Your task to perform on an android device: toggle notification dots Image 0: 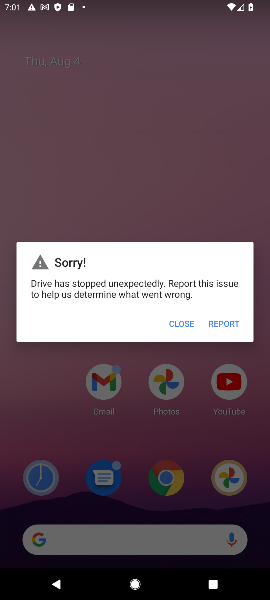
Step 0: press home button
Your task to perform on an android device: toggle notification dots Image 1: 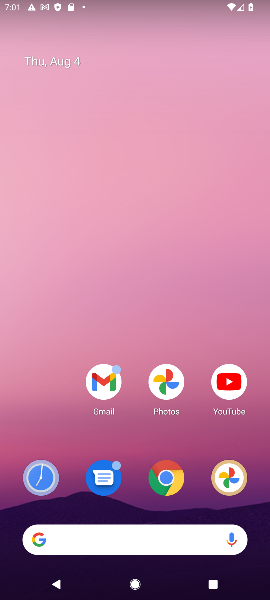
Step 1: drag from (135, 496) to (154, 156)
Your task to perform on an android device: toggle notification dots Image 2: 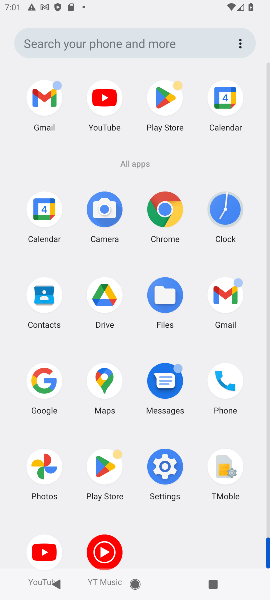
Step 2: click (167, 472)
Your task to perform on an android device: toggle notification dots Image 3: 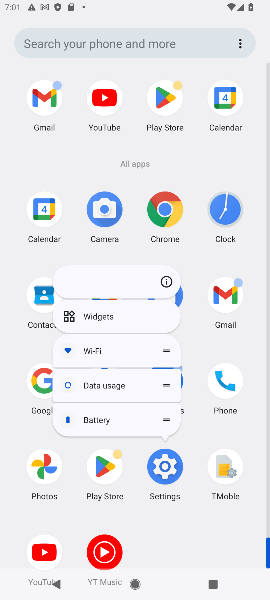
Step 3: click (163, 279)
Your task to perform on an android device: toggle notification dots Image 4: 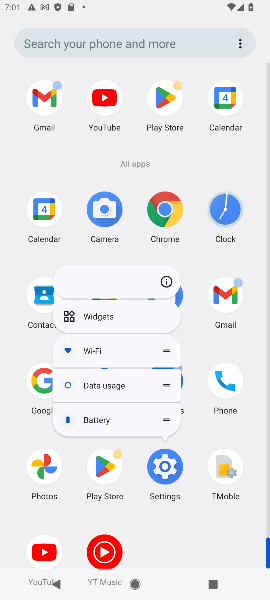
Step 4: click (163, 279)
Your task to perform on an android device: toggle notification dots Image 5: 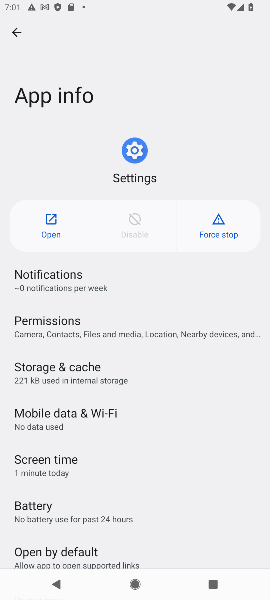
Step 5: click (51, 219)
Your task to perform on an android device: toggle notification dots Image 6: 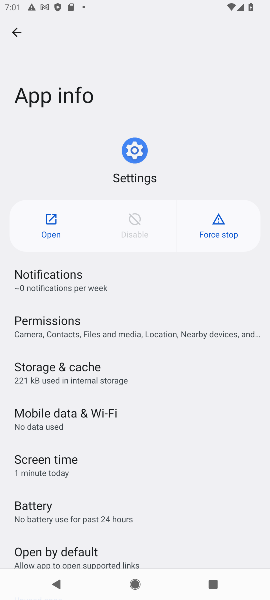
Step 6: click (51, 219)
Your task to perform on an android device: toggle notification dots Image 7: 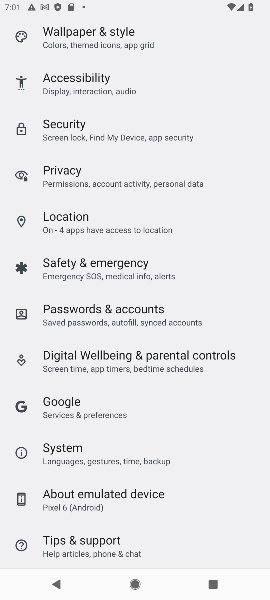
Step 7: drag from (132, 93) to (144, 469)
Your task to perform on an android device: toggle notification dots Image 8: 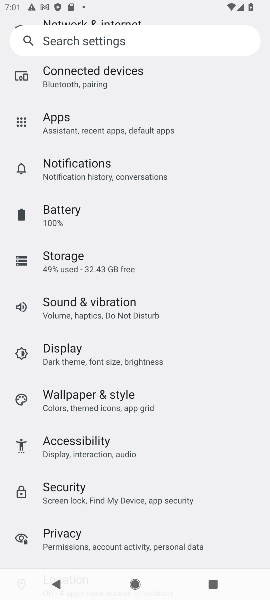
Step 8: click (60, 177)
Your task to perform on an android device: toggle notification dots Image 9: 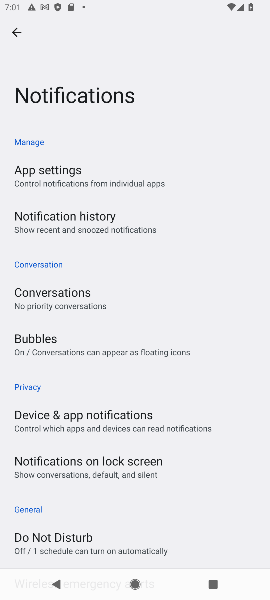
Step 9: drag from (105, 493) to (156, 138)
Your task to perform on an android device: toggle notification dots Image 10: 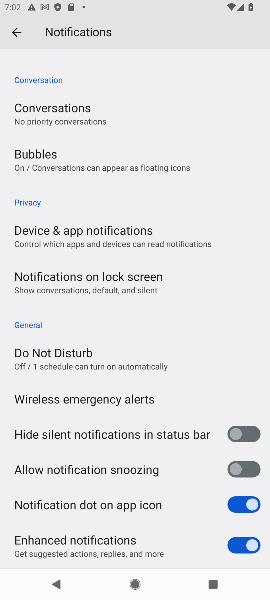
Step 10: click (243, 503)
Your task to perform on an android device: toggle notification dots Image 11: 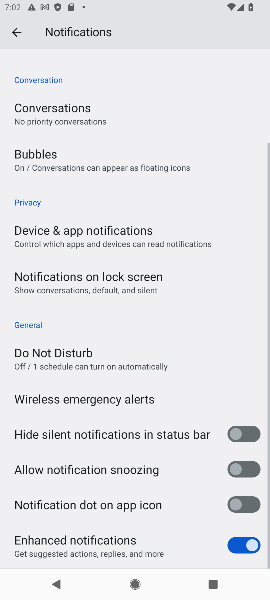
Step 11: task complete